Your task to perform on an android device: What's the weather like in Johannesburg? Image 0: 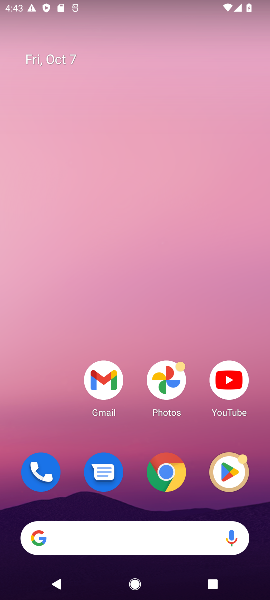
Step 0: click (178, 481)
Your task to perform on an android device: What's the weather like in Johannesburg? Image 1: 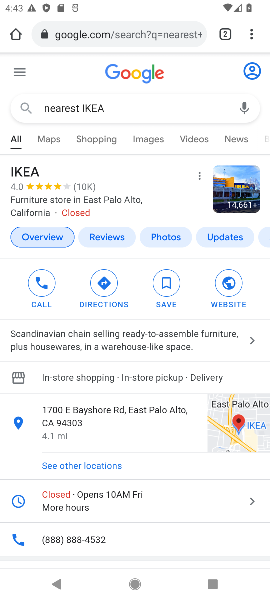
Step 1: click (157, 40)
Your task to perform on an android device: What's the weather like in Johannesburg? Image 2: 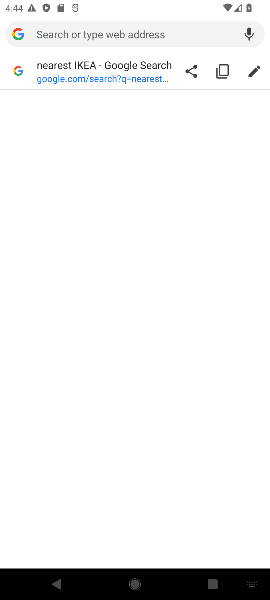
Step 2: type "weather like in Johannesburg"
Your task to perform on an android device: What's the weather like in Johannesburg? Image 3: 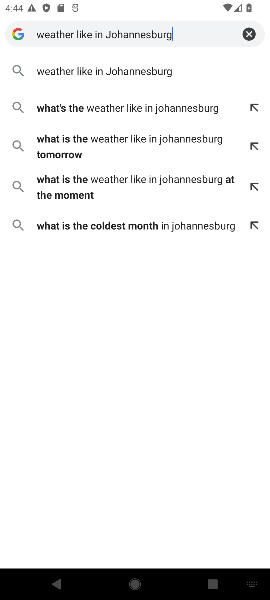
Step 3: click (107, 71)
Your task to perform on an android device: What's the weather like in Johannesburg? Image 4: 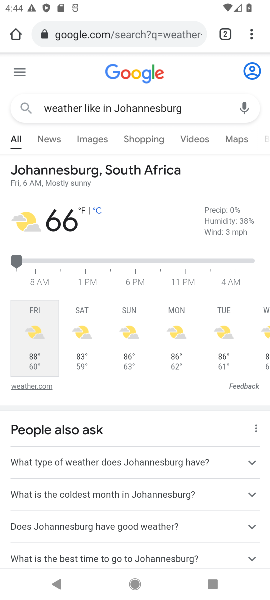
Step 4: task complete